Your task to perform on an android device: Open wifi settings Image 0: 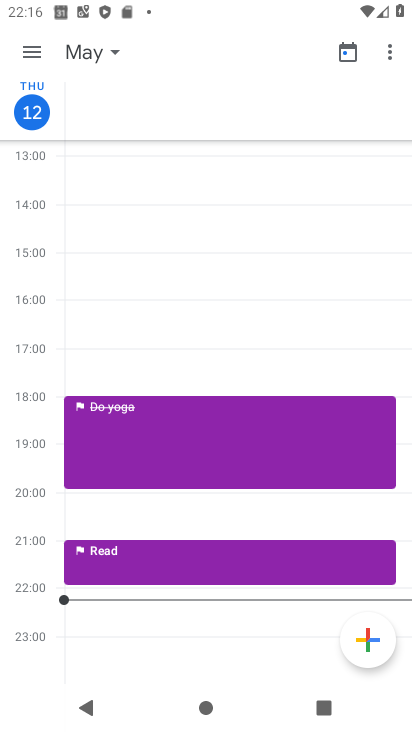
Step 0: press home button
Your task to perform on an android device: Open wifi settings Image 1: 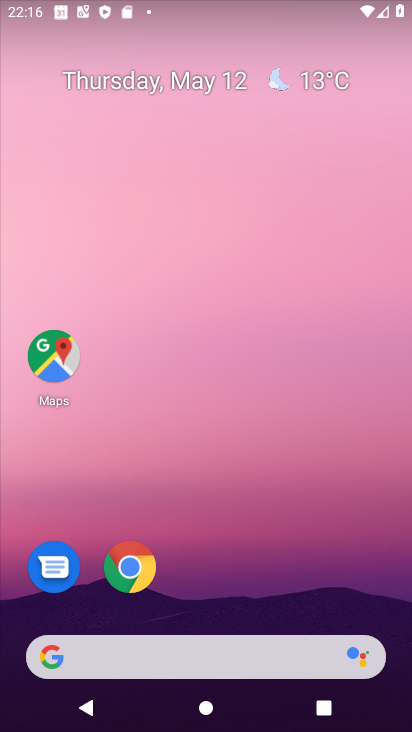
Step 1: drag from (205, 605) to (188, 173)
Your task to perform on an android device: Open wifi settings Image 2: 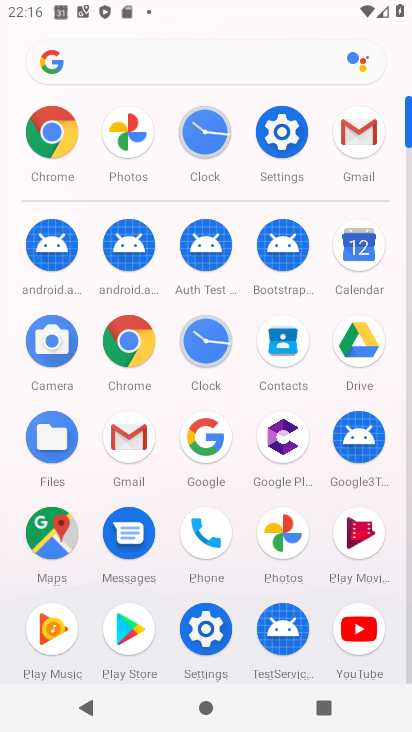
Step 2: click (279, 125)
Your task to perform on an android device: Open wifi settings Image 3: 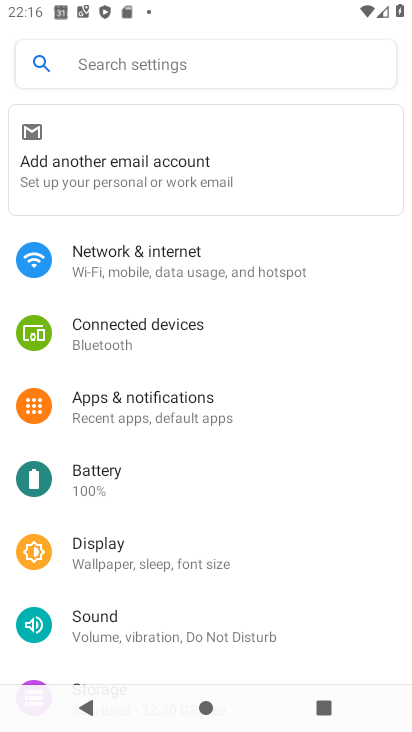
Step 3: click (152, 265)
Your task to perform on an android device: Open wifi settings Image 4: 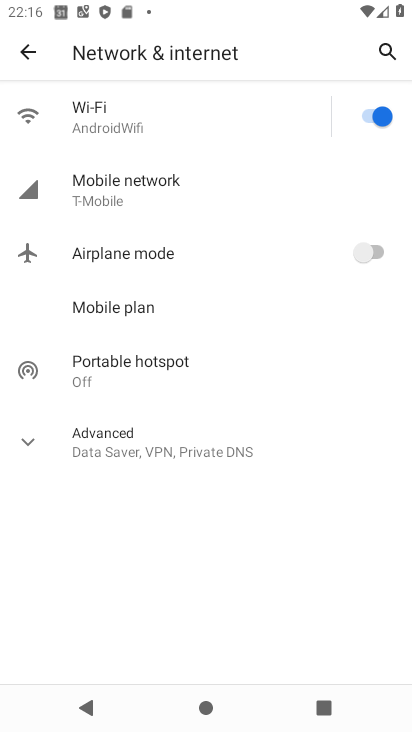
Step 4: click (177, 116)
Your task to perform on an android device: Open wifi settings Image 5: 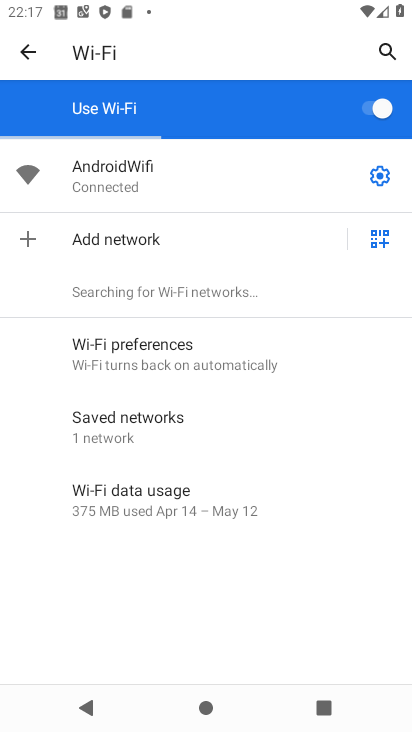
Step 5: task complete